Your task to perform on an android device: Go to Yahoo.com Image 0: 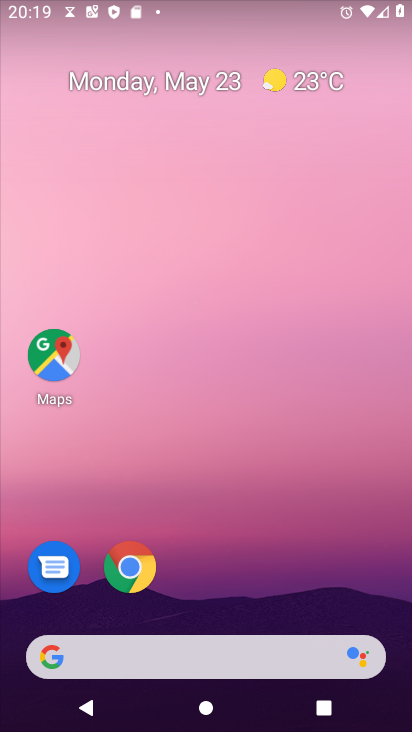
Step 0: drag from (281, 543) to (286, 284)
Your task to perform on an android device: Go to Yahoo.com Image 1: 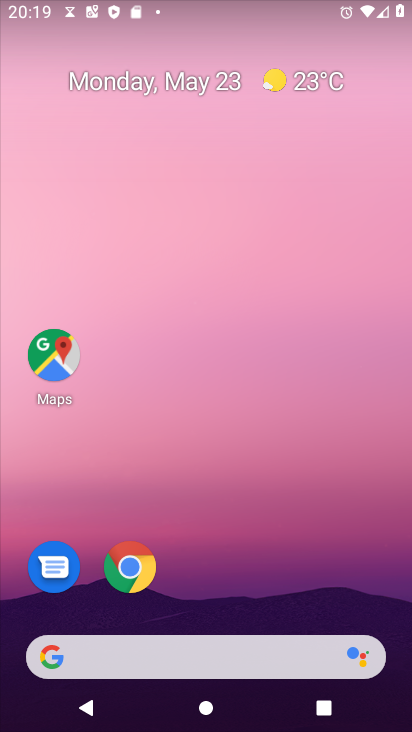
Step 1: click (132, 562)
Your task to perform on an android device: Go to Yahoo.com Image 2: 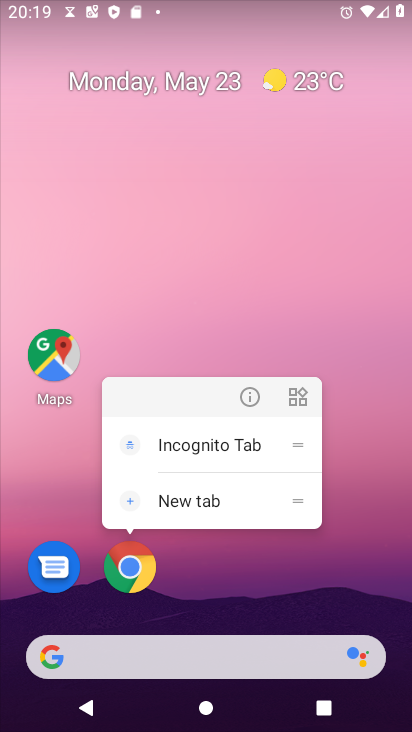
Step 2: click (141, 558)
Your task to perform on an android device: Go to Yahoo.com Image 3: 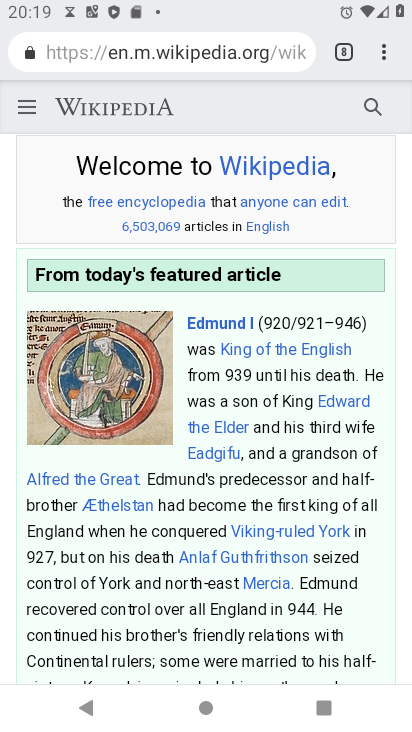
Step 3: click (345, 48)
Your task to perform on an android device: Go to Yahoo.com Image 4: 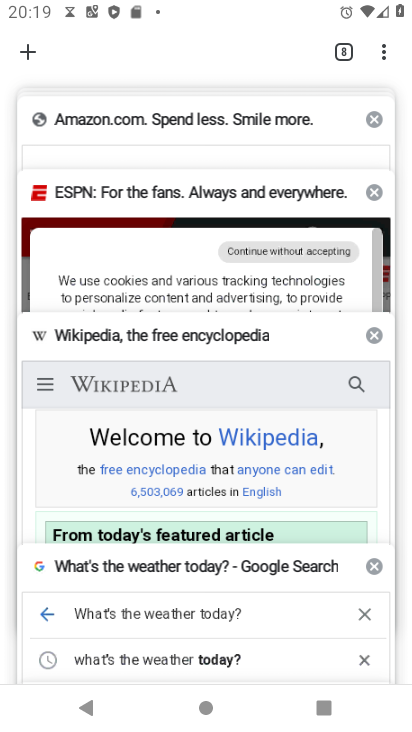
Step 4: drag from (190, 227) to (219, 530)
Your task to perform on an android device: Go to Yahoo.com Image 5: 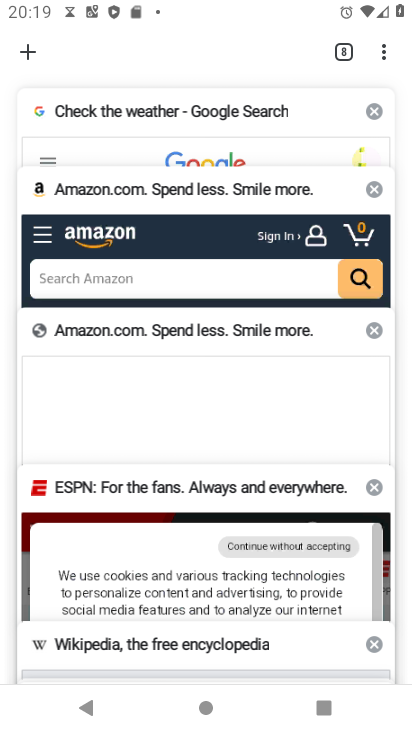
Step 5: drag from (160, 160) to (192, 117)
Your task to perform on an android device: Go to Yahoo.com Image 6: 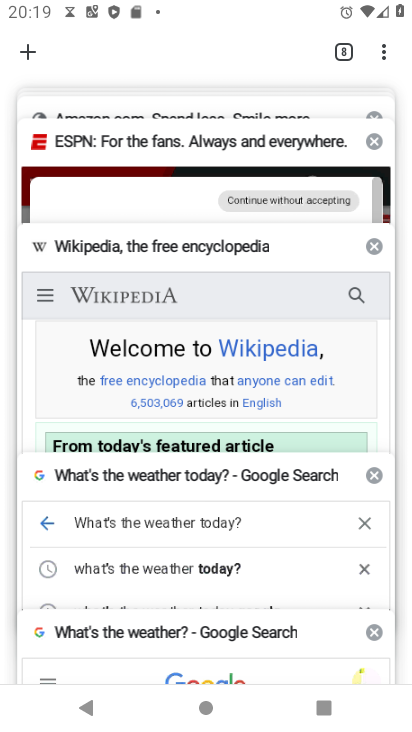
Step 6: drag from (194, 591) to (209, 192)
Your task to perform on an android device: Go to Yahoo.com Image 7: 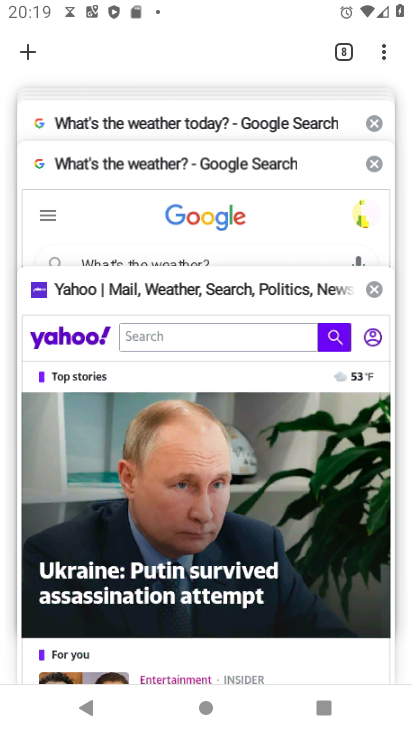
Step 7: click (119, 417)
Your task to perform on an android device: Go to Yahoo.com Image 8: 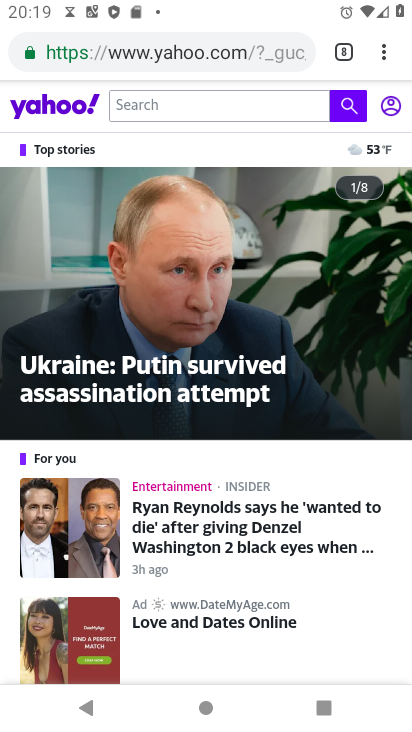
Step 8: task complete